Your task to perform on an android device: set an alarm Image 0: 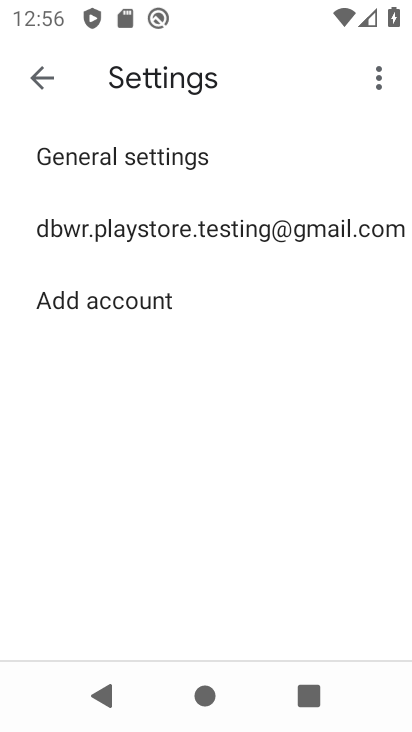
Step 0: press home button
Your task to perform on an android device: set an alarm Image 1: 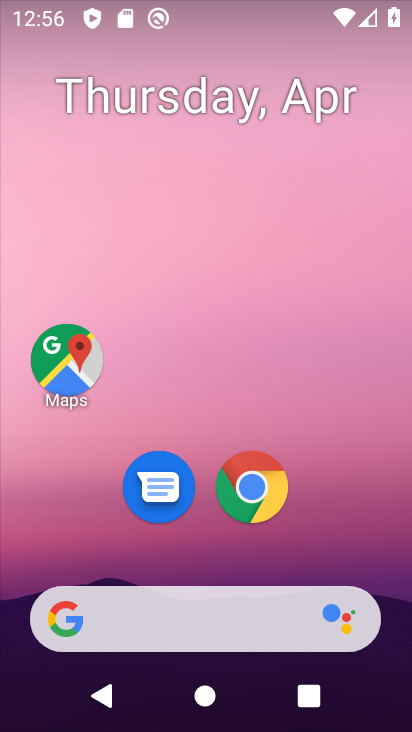
Step 1: drag from (291, 479) to (250, 141)
Your task to perform on an android device: set an alarm Image 2: 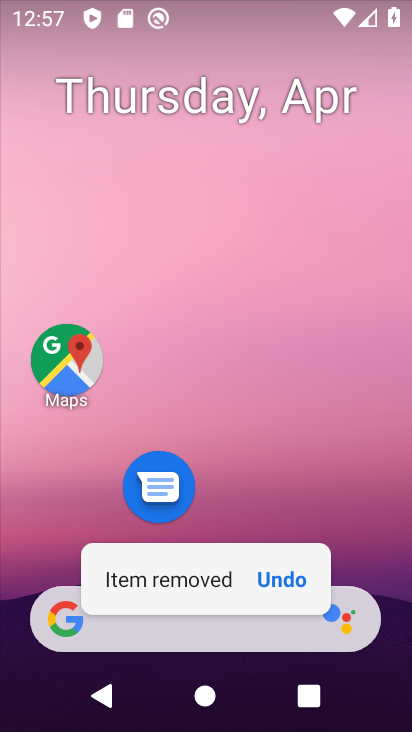
Step 2: click (280, 586)
Your task to perform on an android device: set an alarm Image 3: 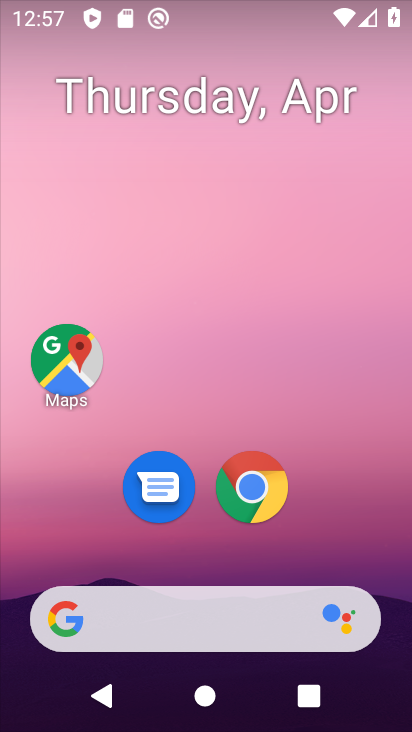
Step 3: drag from (286, 568) to (300, 152)
Your task to perform on an android device: set an alarm Image 4: 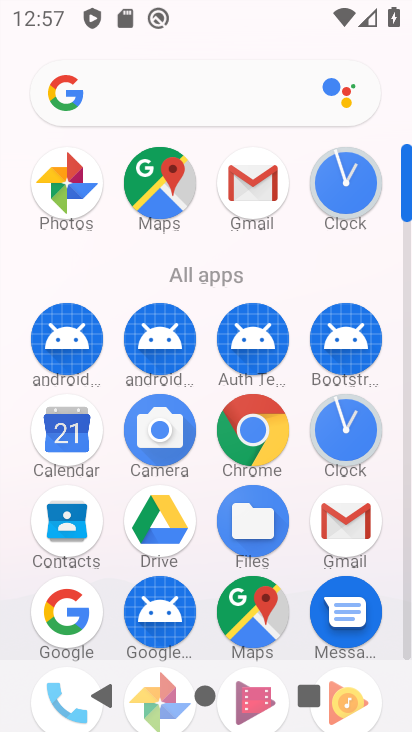
Step 4: click (343, 210)
Your task to perform on an android device: set an alarm Image 5: 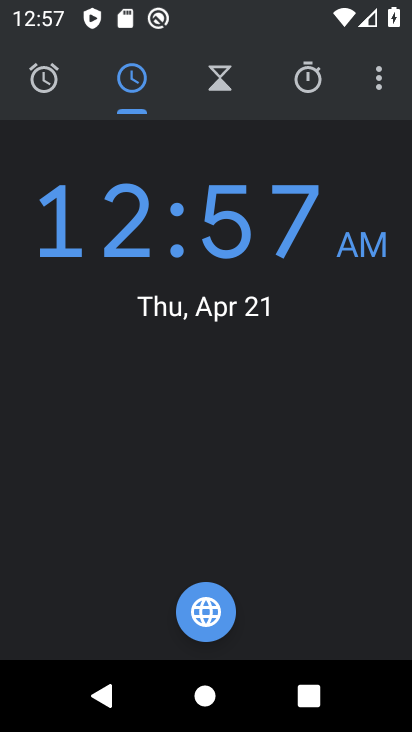
Step 5: click (55, 91)
Your task to perform on an android device: set an alarm Image 6: 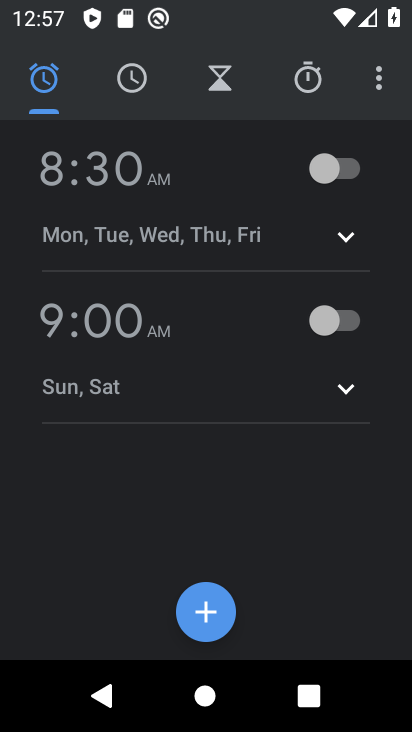
Step 6: click (219, 605)
Your task to perform on an android device: set an alarm Image 7: 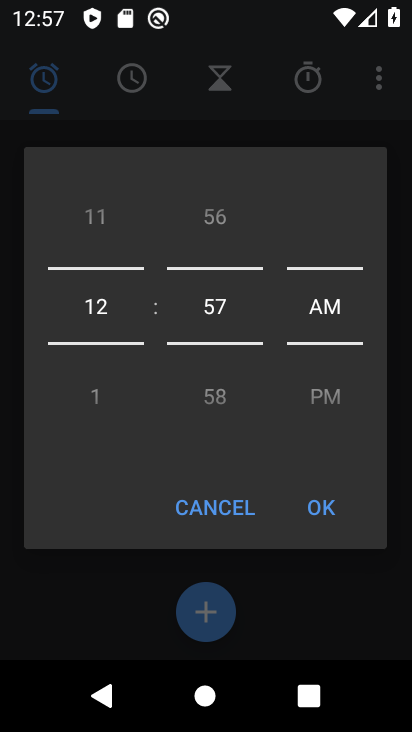
Step 7: click (319, 504)
Your task to perform on an android device: set an alarm Image 8: 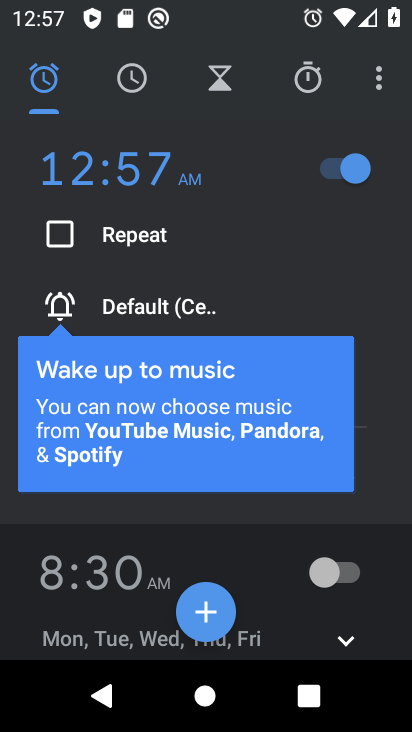
Step 8: click (358, 438)
Your task to perform on an android device: set an alarm Image 9: 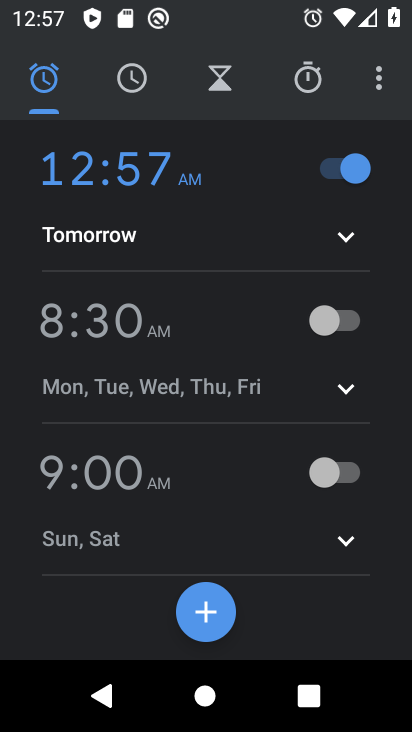
Step 9: task complete